Your task to perform on an android device: Open Android settings Image 0: 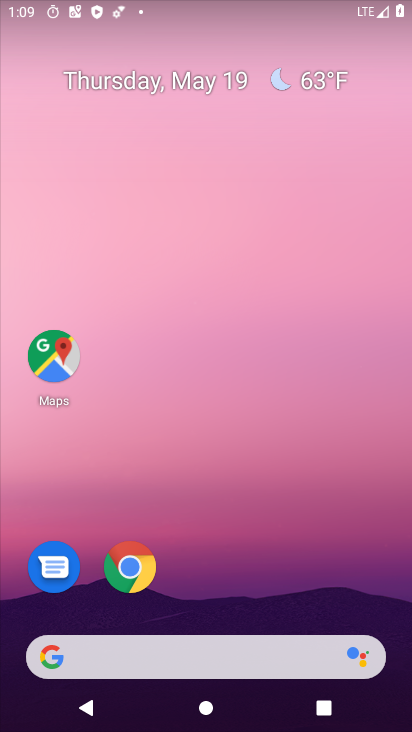
Step 0: drag from (221, 661) to (300, 267)
Your task to perform on an android device: Open Android settings Image 1: 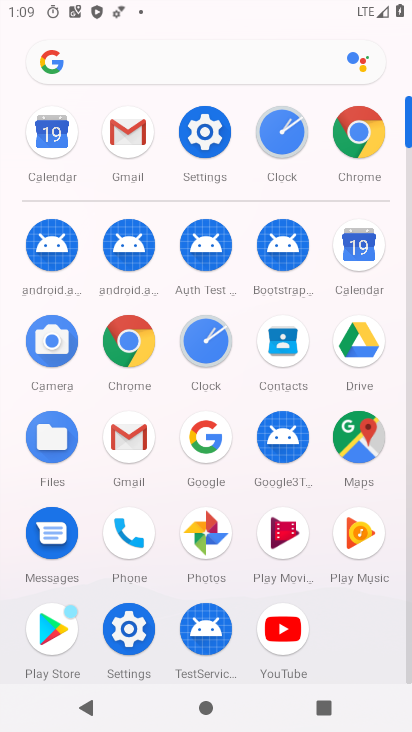
Step 1: click (208, 135)
Your task to perform on an android device: Open Android settings Image 2: 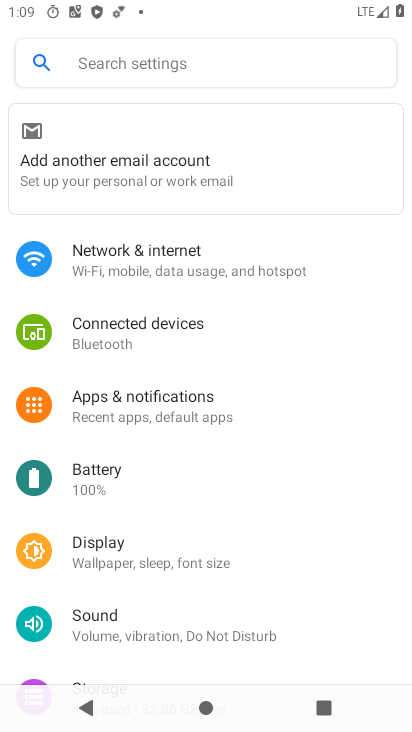
Step 2: task complete